Your task to perform on an android device: turn smart compose on in the gmail app Image 0: 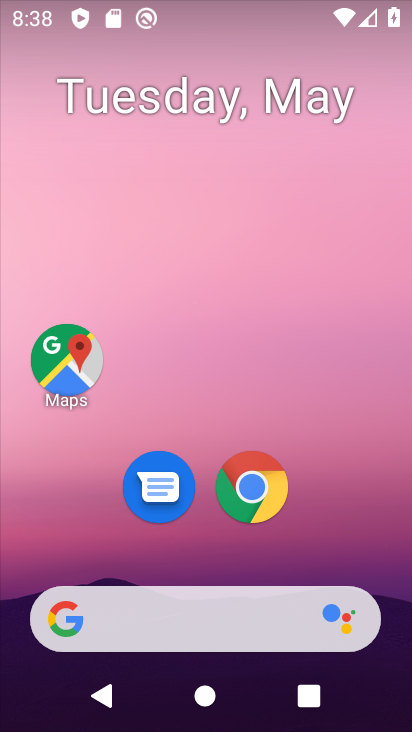
Step 0: drag from (205, 610) to (337, 145)
Your task to perform on an android device: turn smart compose on in the gmail app Image 1: 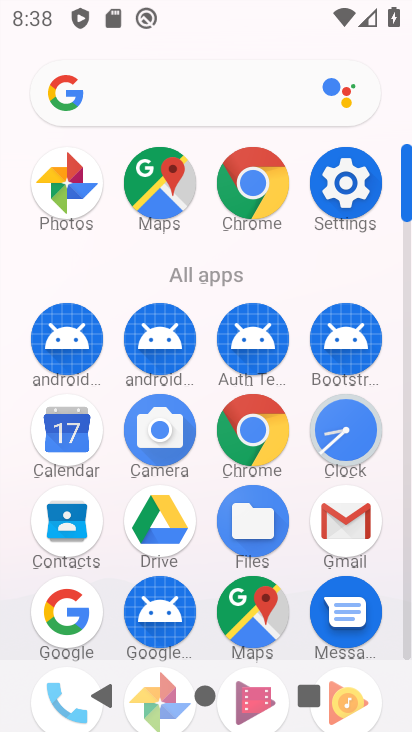
Step 1: click (350, 527)
Your task to perform on an android device: turn smart compose on in the gmail app Image 2: 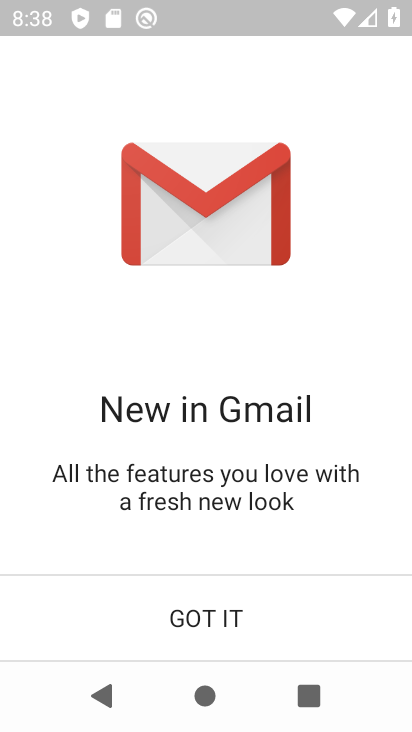
Step 2: click (236, 617)
Your task to perform on an android device: turn smart compose on in the gmail app Image 3: 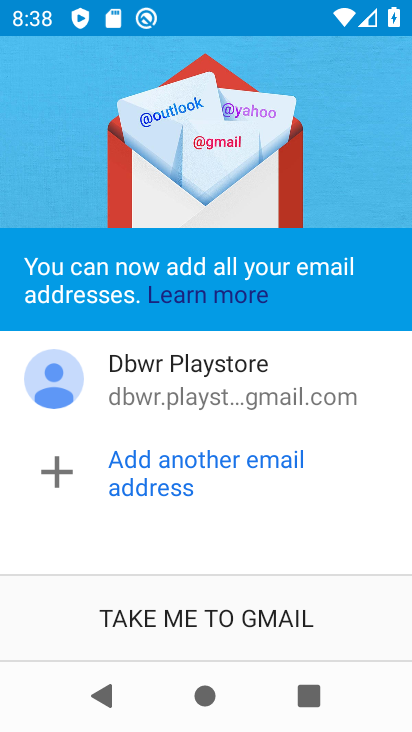
Step 3: click (236, 617)
Your task to perform on an android device: turn smart compose on in the gmail app Image 4: 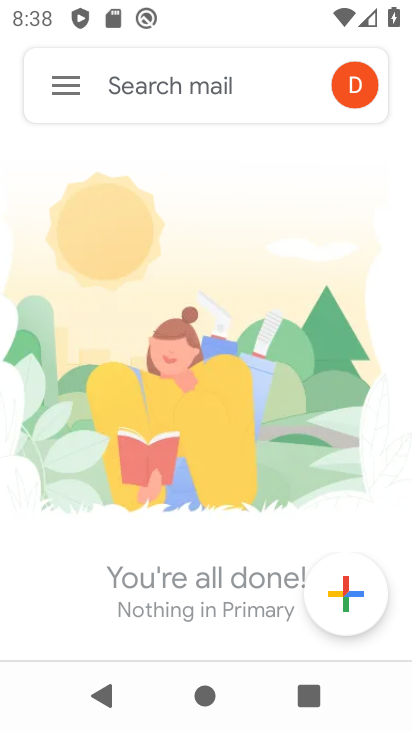
Step 4: click (61, 82)
Your task to perform on an android device: turn smart compose on in the gmail app Image 5: 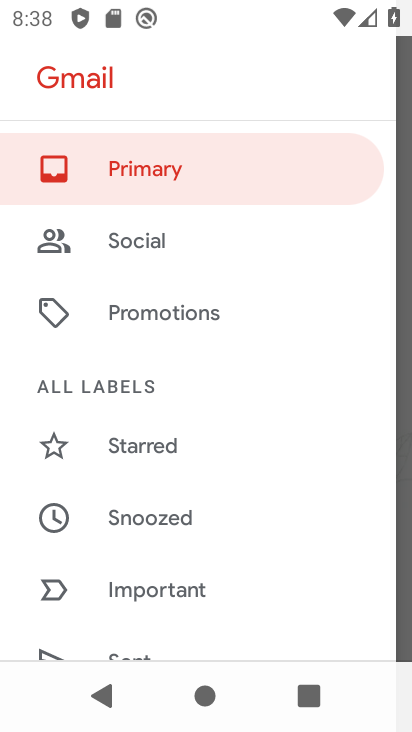
Step 5: drag from (245, 621) to (393, 55)
Your task to perform on an android device: turn smart compose on in the gmail app Image 6: 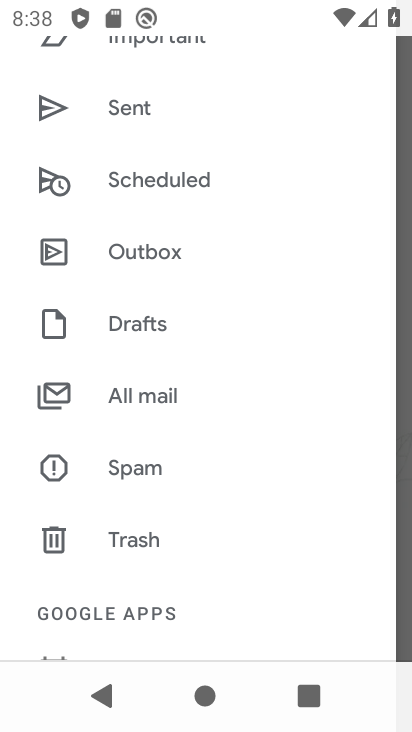
Step 6: drag from (206, 570) to (343, 124)
Your task to perform on an android device: turn smart compose on in the gmail app Image 7: 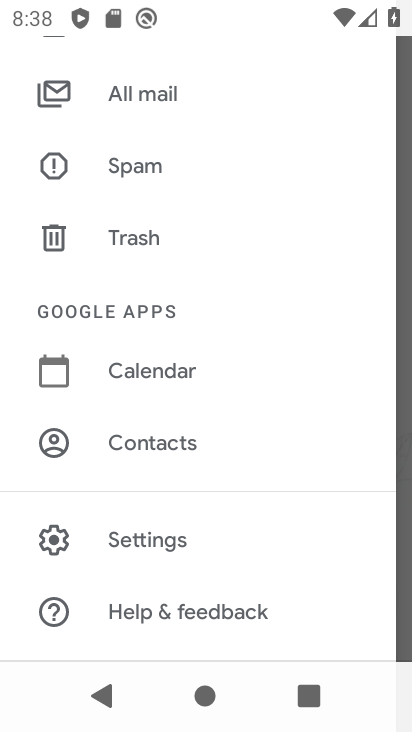
Step 7: click (128, 542)
Your task to perform on an android device: turn smart compose on in the gmail app Image 8: 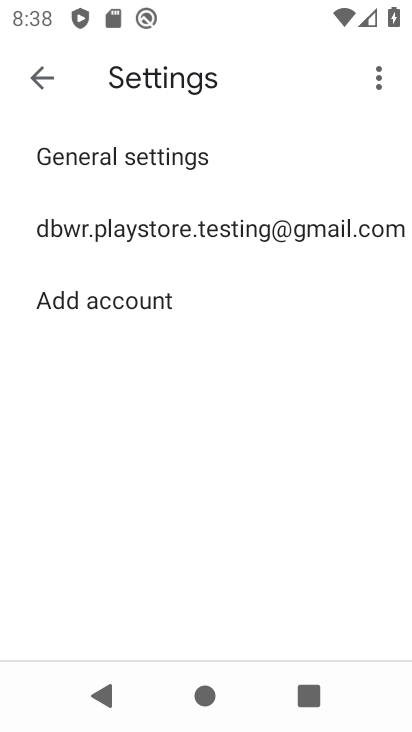
Step 8: click (253, 220)
Your task to perform on an android device: turn smart compose on in the gmail app Image 9: 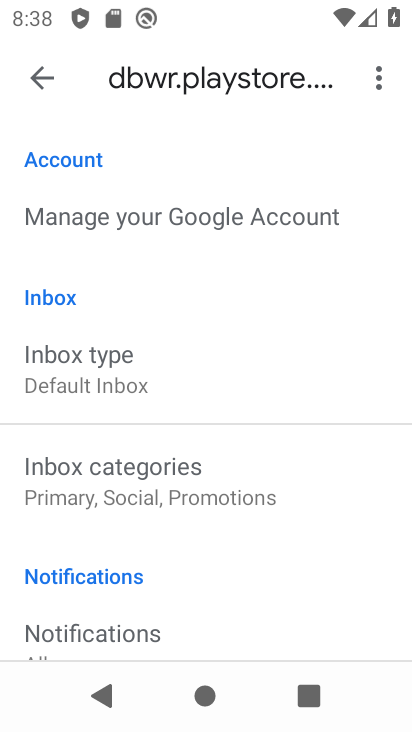
Step 9: task complete